Your task to perform on an android device: Open accessibility settings Image 0: 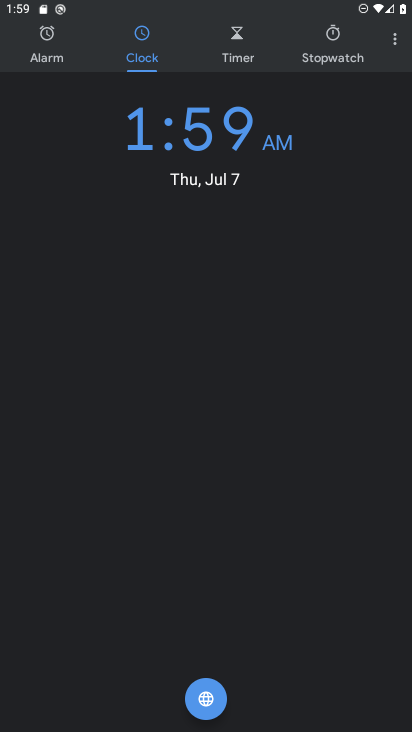
Step 0: press home button
Your task to perform on an android device: Open accessibility settings Image 1: 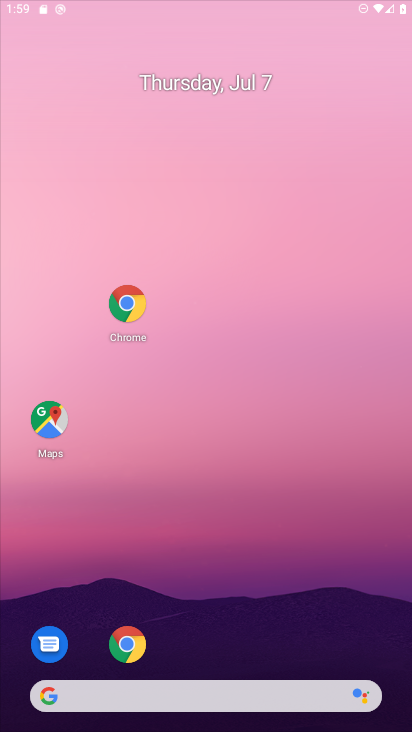
Step 1: drag from (284, 558) to (236, 21)
Your task to perform on an android device: Open accessibility settings Image 2: 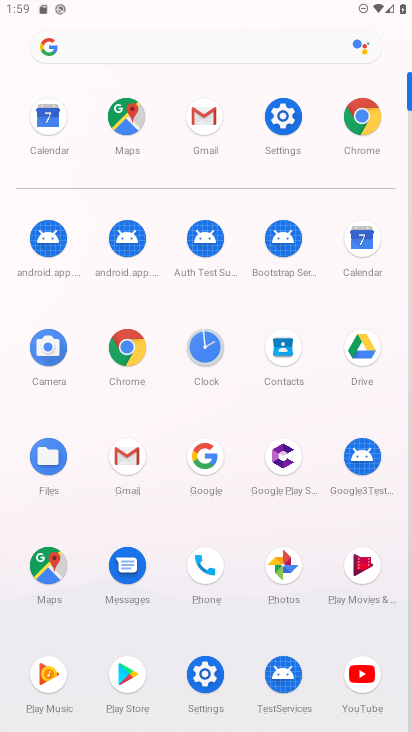
Step 2: click (212, 685)
Your task to perform on an android device: Open accessibility settings Image 3: 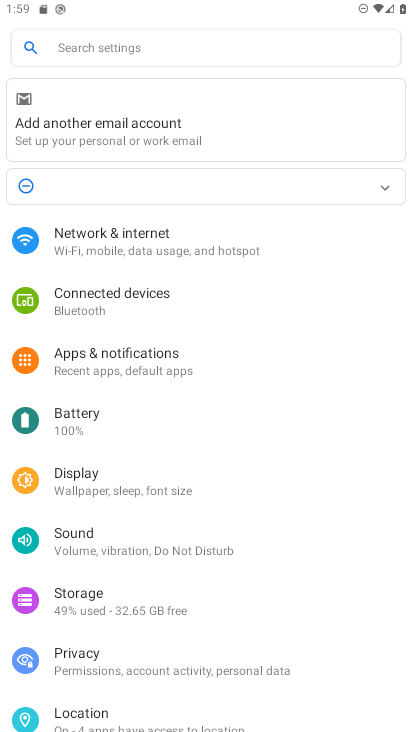
Step 3: drag from (144, 655) to (171, 323)
Your task to perform on an android device: Open accessibility settings Image 4: 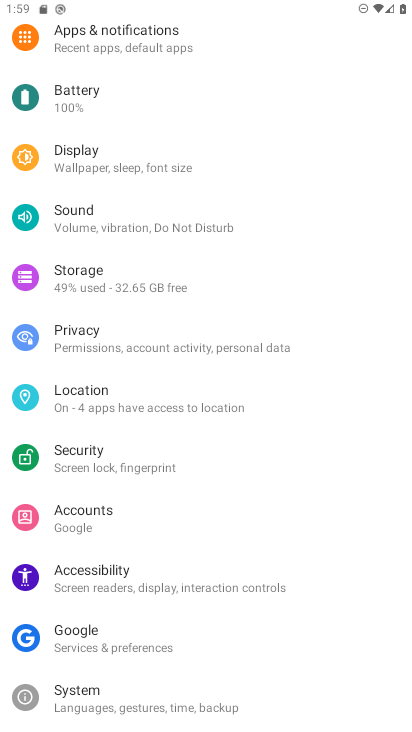
Step 4: click (192, 580)
Your task to perform on an android device: Open accessibility settings Image 5: 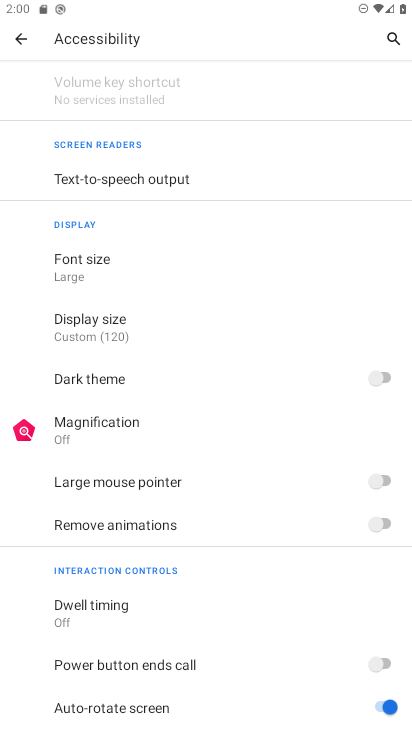
Step 5: task complete